Your task to perform on an android device: Open Amazon Image 0: 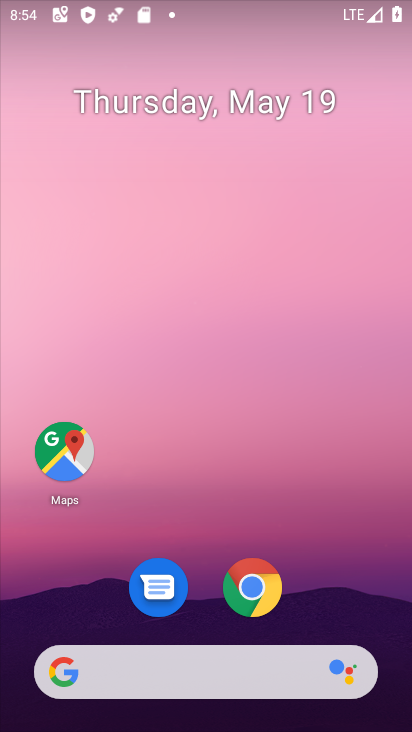
Step 0: drag from (332, 581) to (251, 0)
Your task to perform on an android device: Open Amazon Image 1: 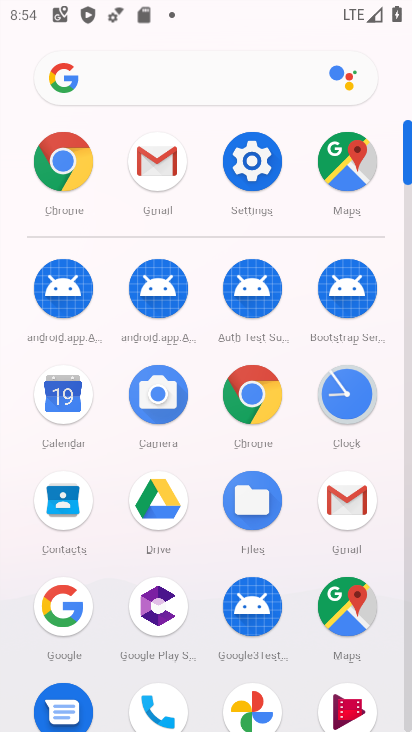
Step 1: click (53, 159)
Your task to perform on an android device: Open Amazon Image 2: 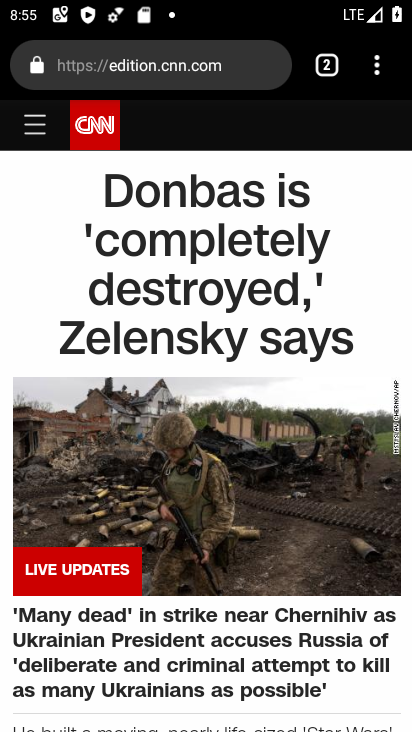
Step 2: click (161, 71)
Your task to perform on an android device: Open Amazon Image 3: 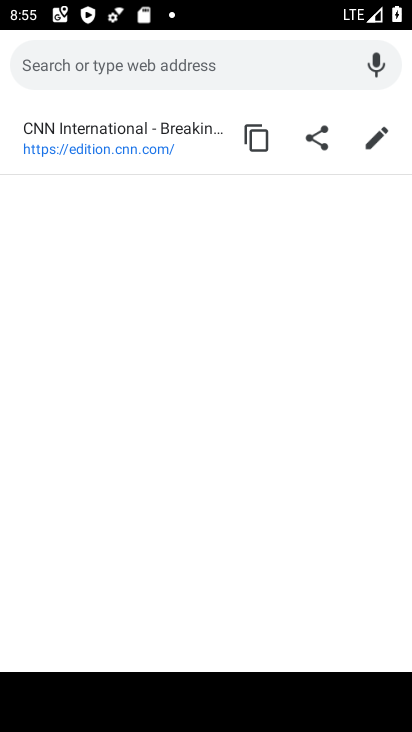
Step 3: type "Amazon"
Your task to perform on an android device: Open Amazon Image 4: 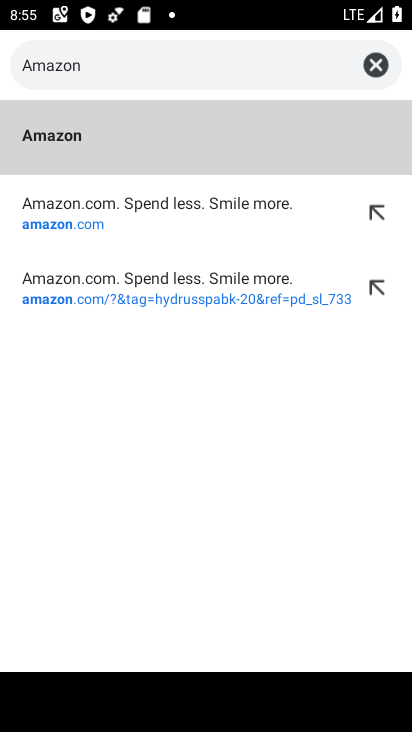
Step 4: click (124, 199)
Your task to perform on an android device: Open Amazon Image 5: 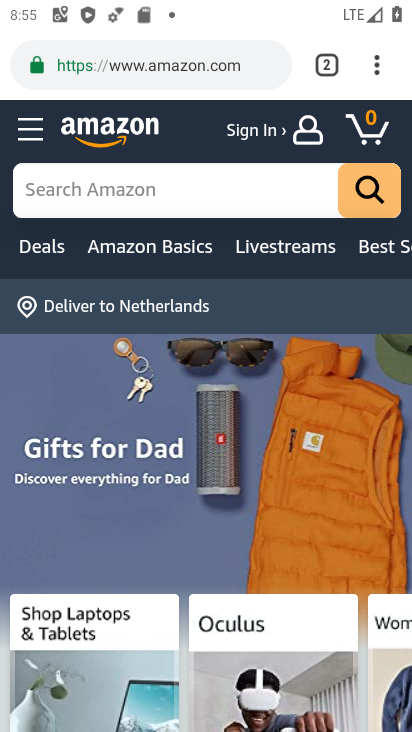
Step 5: task complete